Your task to perform on an android device: install app "Reddit" Image 0: 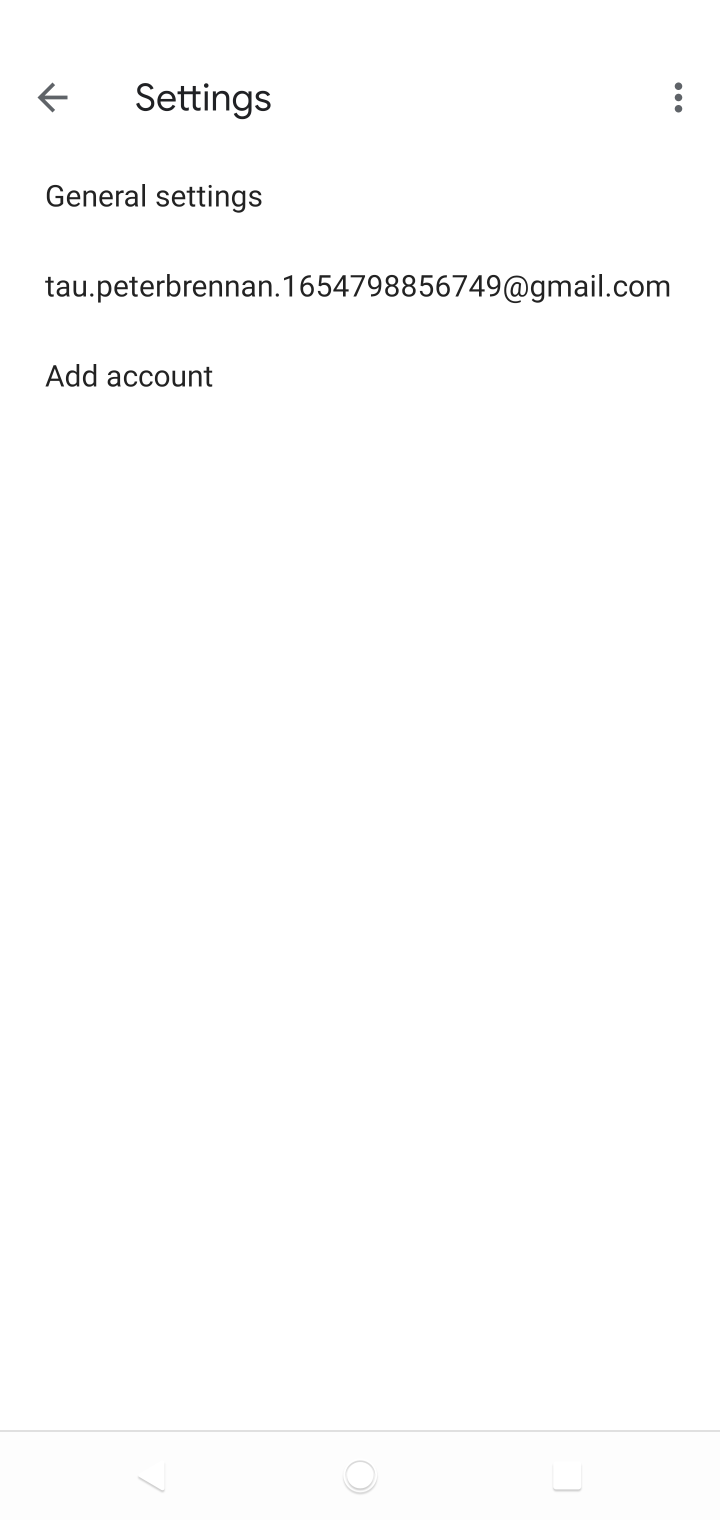
Step 0: press home button
Your task to perform on an android device: install app "Reddit" Image 1: 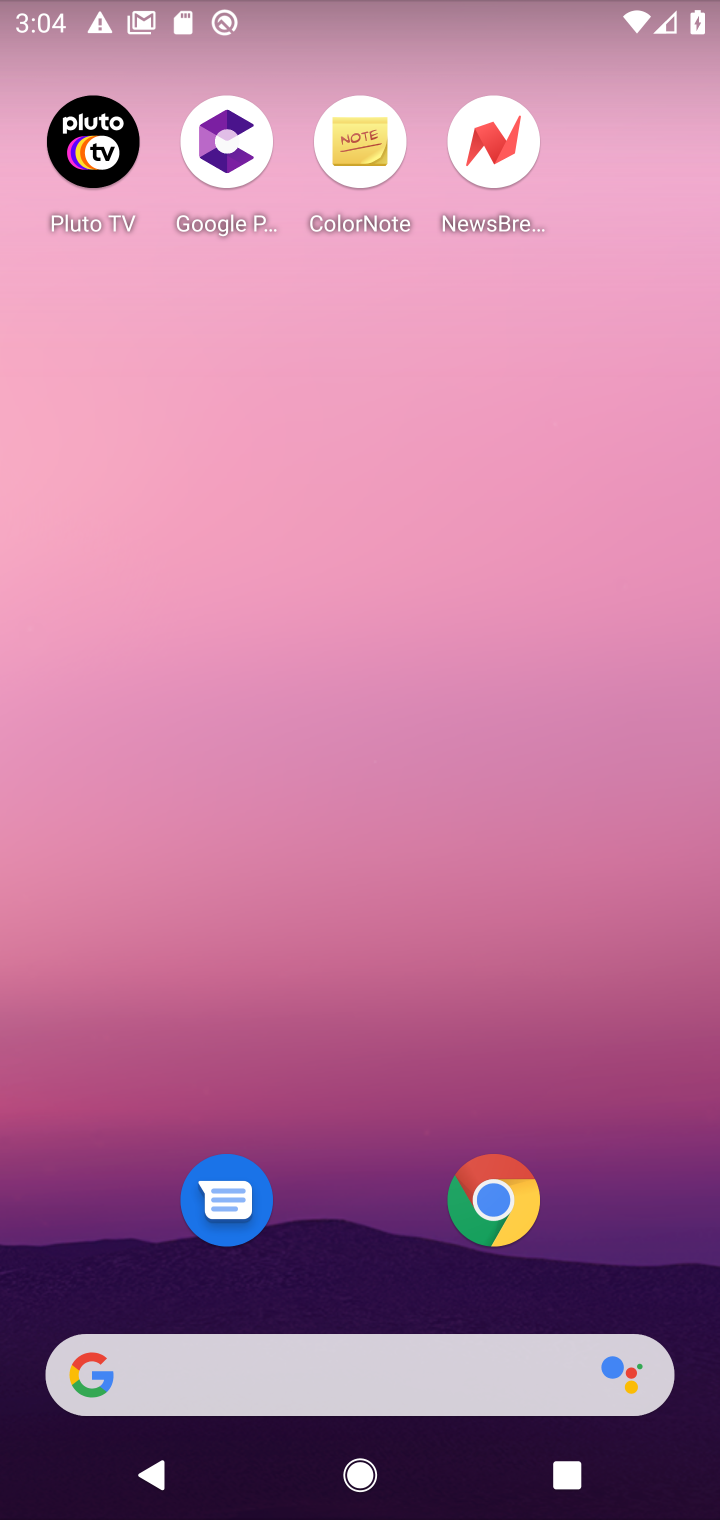
Step 1: drag from (339, 909) to (381, 245)
Your task to perform on an android device: install app "Reddit" Image 2: 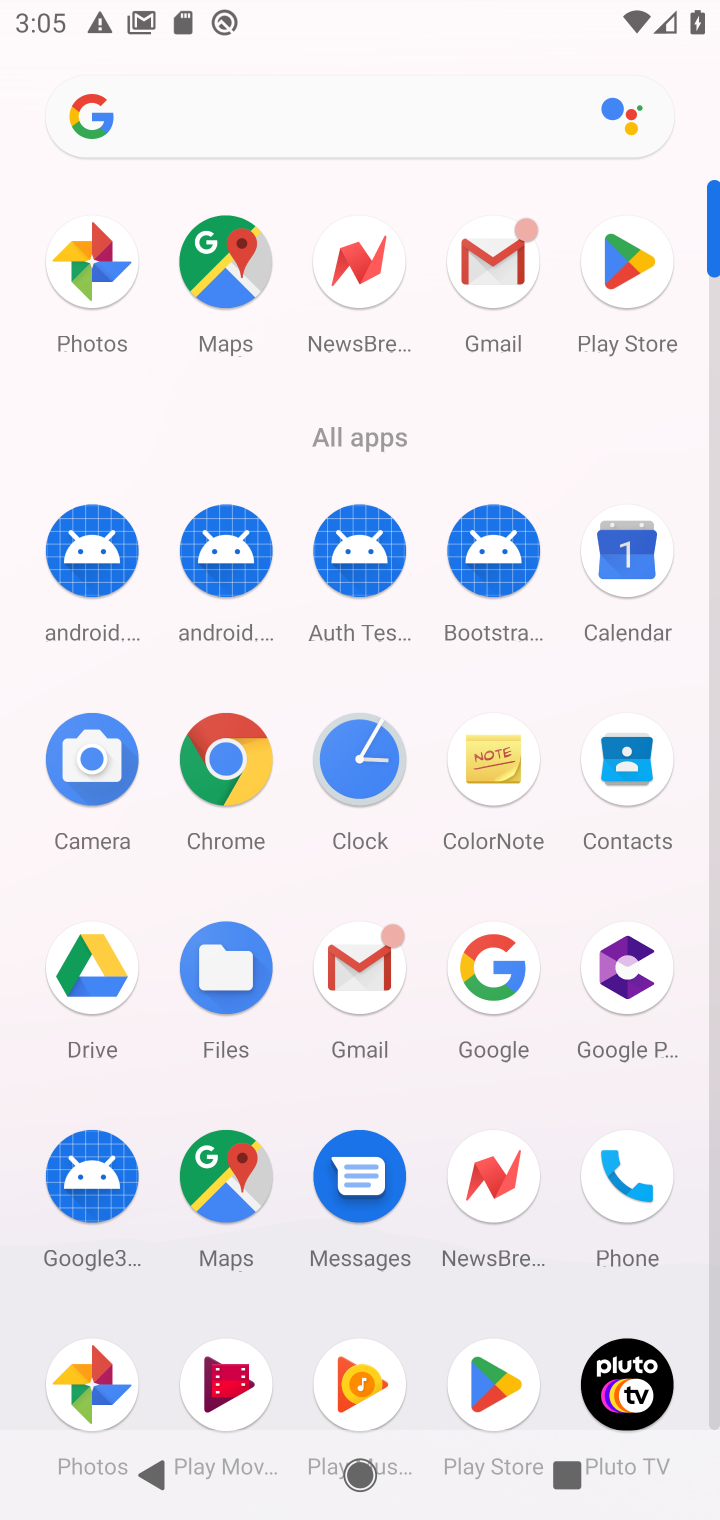
Step 2: click (646, 303)
Your task to perform on an android device: install app "Reddit" Image 3: 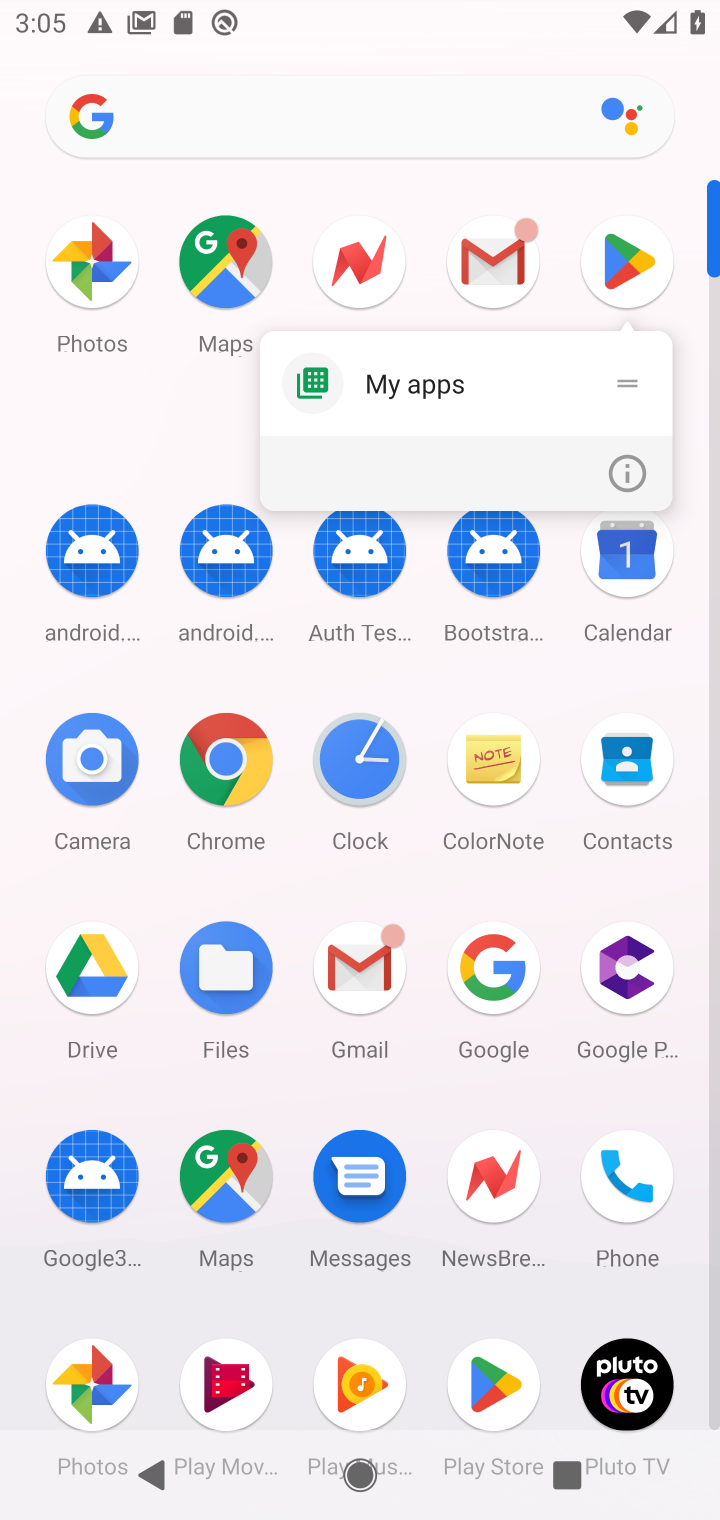
Step 3: click (656, 242)
Your task to perform on an android device: install app "Reddit" Image 4: 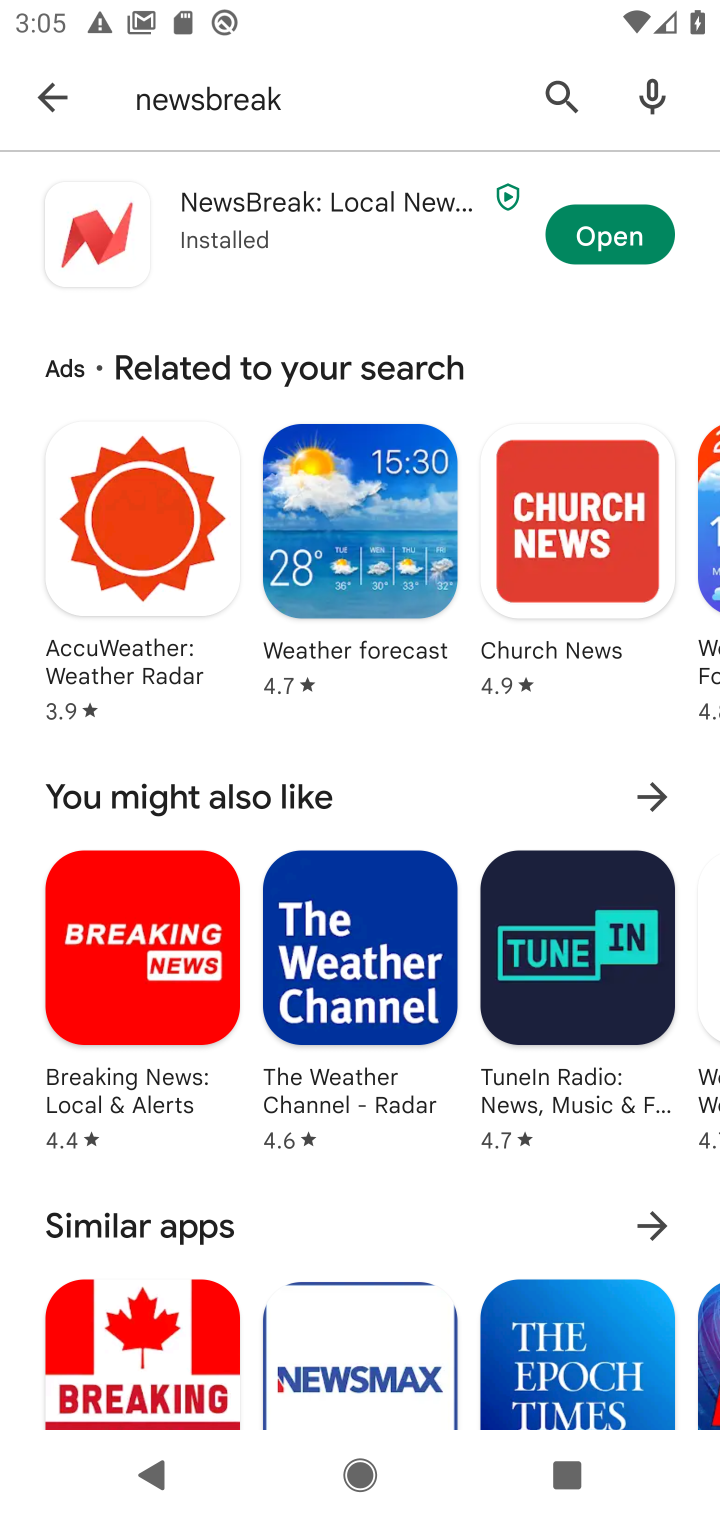
Step 4: click (294, 130)
Your task to perform on an android device: install app "Reddit" Image 5: 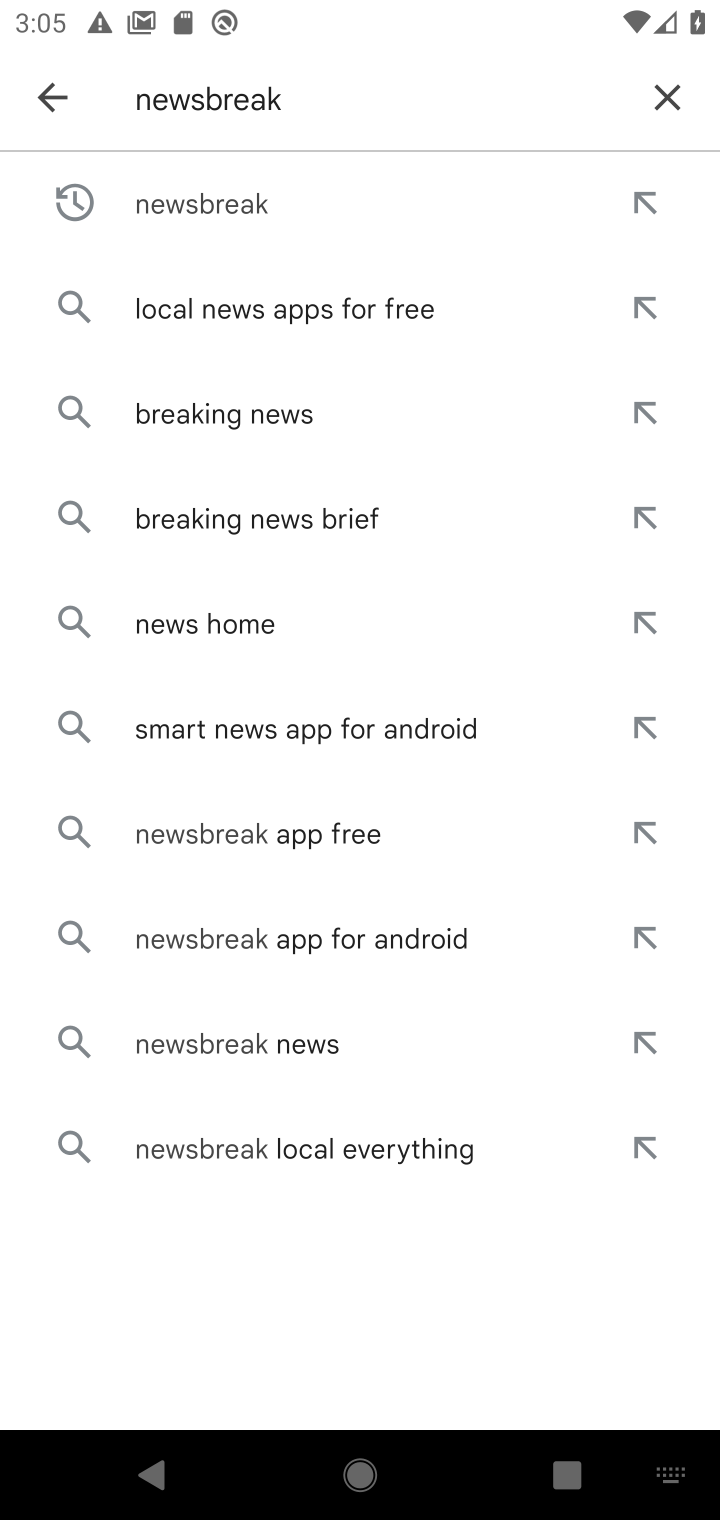
Step 5: click (651, 94)
Your task to perform on an android device: install app "Reddit" Image 6: 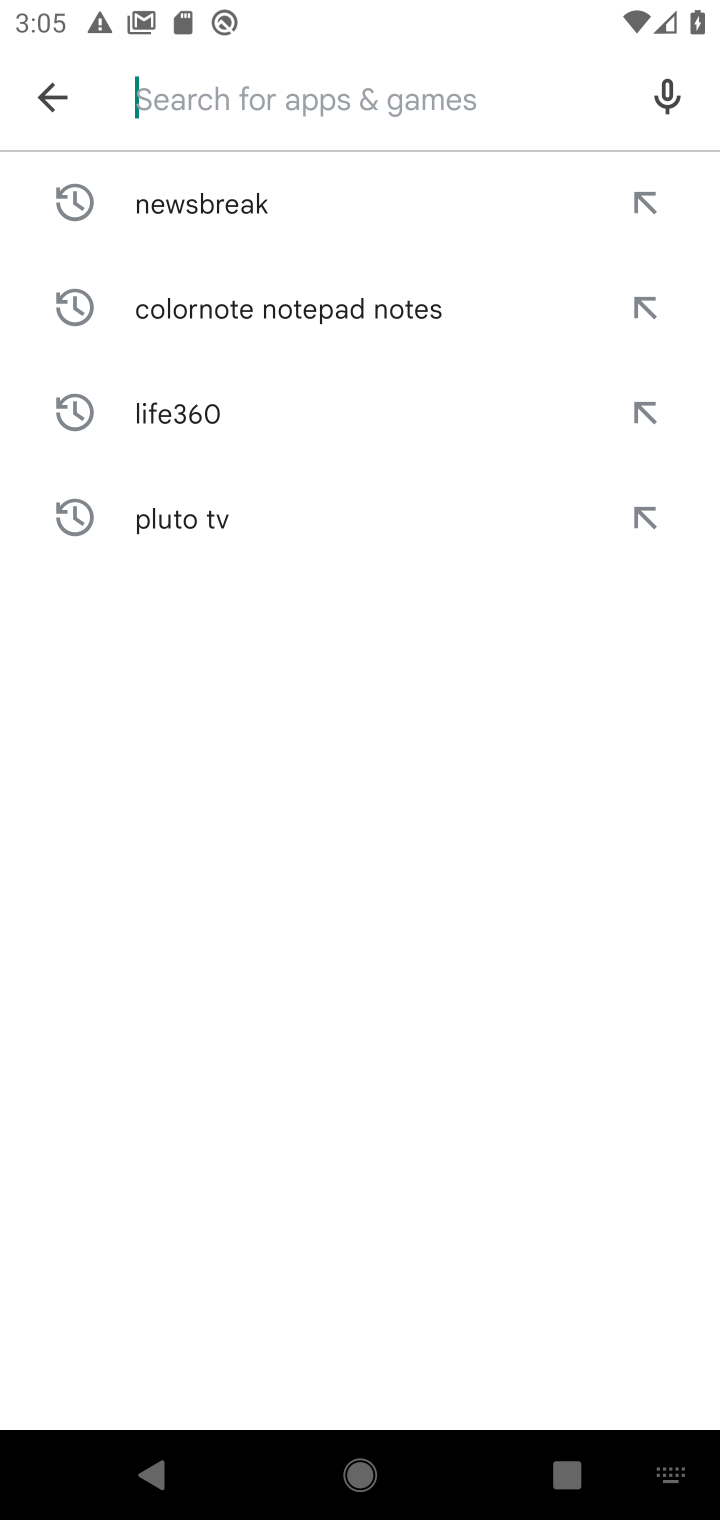
Step 6: type "reddit"
Your task to perform on an android device: install app "Reddit" Image 7: 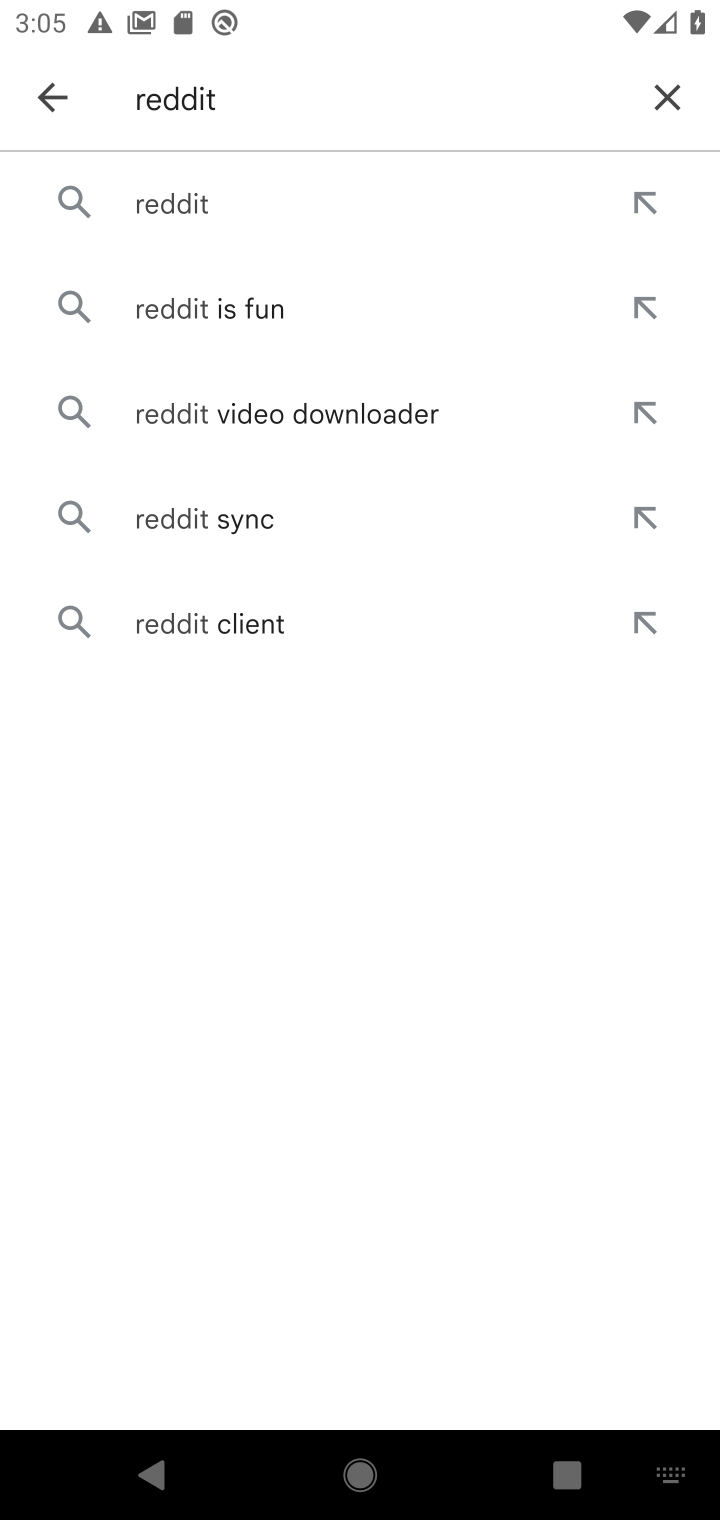
Step 7: click (227, 206)
Your task to perform on an android device: install app "Reddit" Image 8: 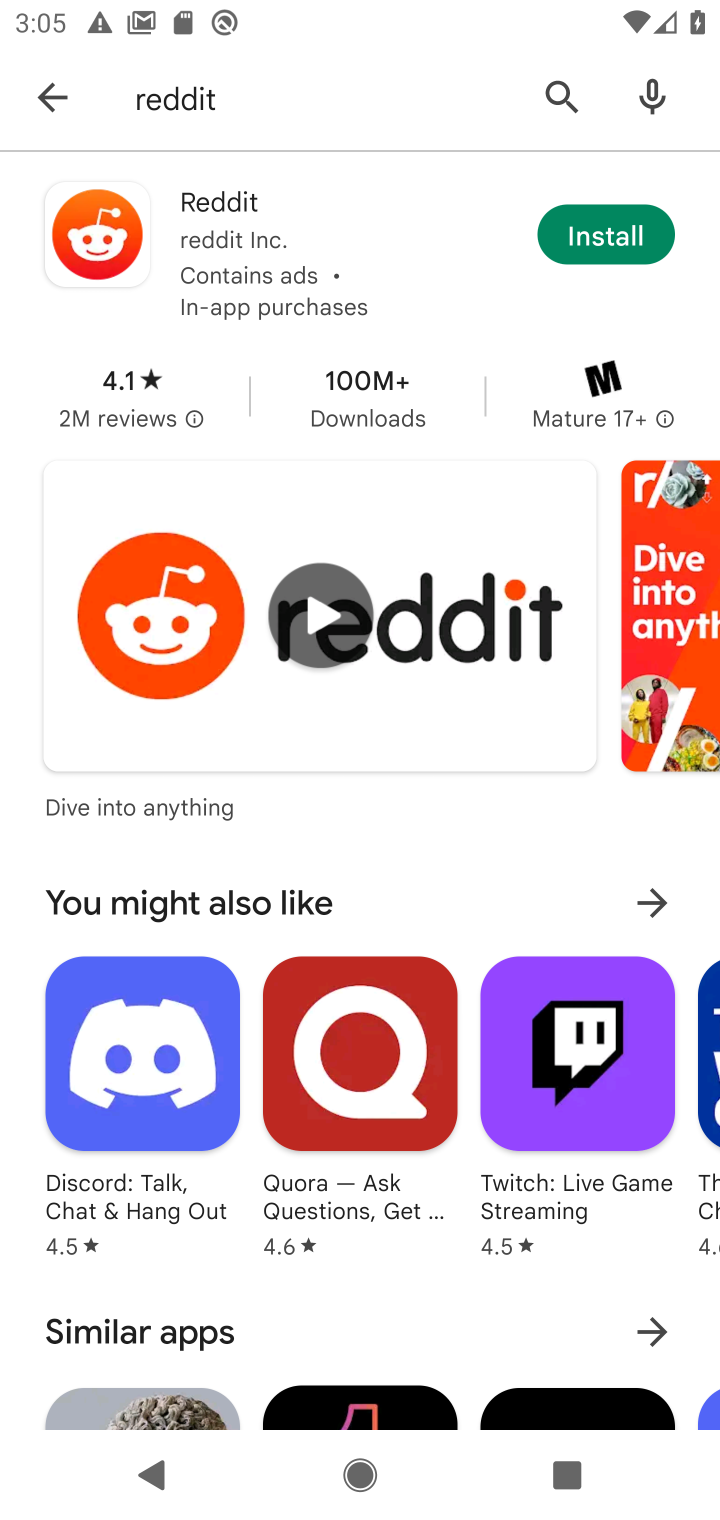
Step 8: click (629, 235)
Your task to perform on an android device: install app "Reddit" Image 9: 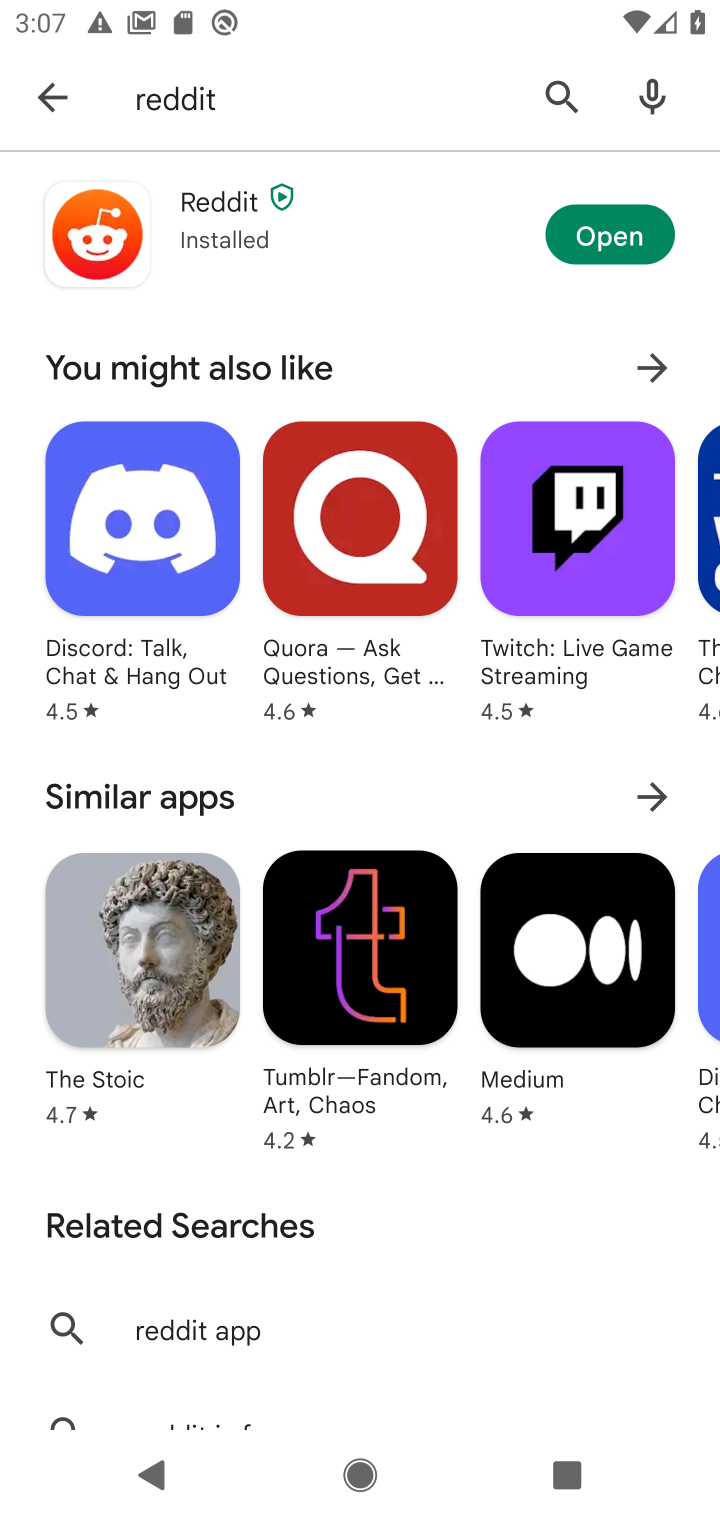
Step 9: task complete